Your task to perform on an android device: clear history in the chrome app Image 0: 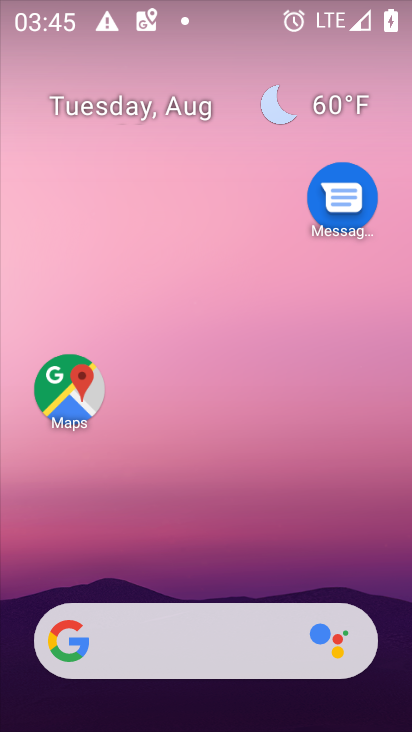
Step 0: drag from (209, 587) to (216, 219)
Your task to perform on an android device: clear history in the chrome app Image 1: 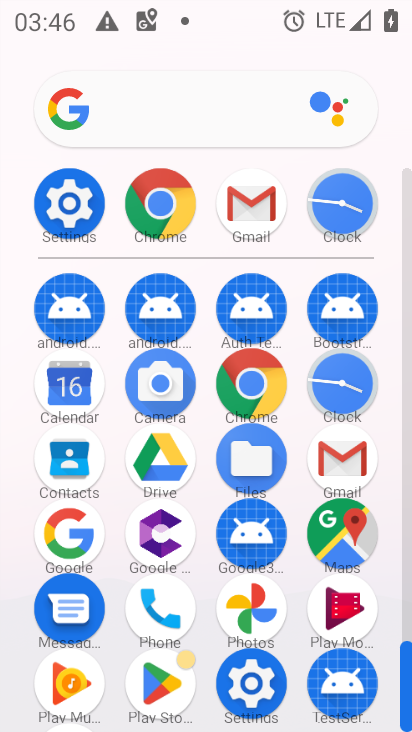
Step 1: click (165, 211)
Your task to perform on an android device: clear history in the chrome app Image 2: 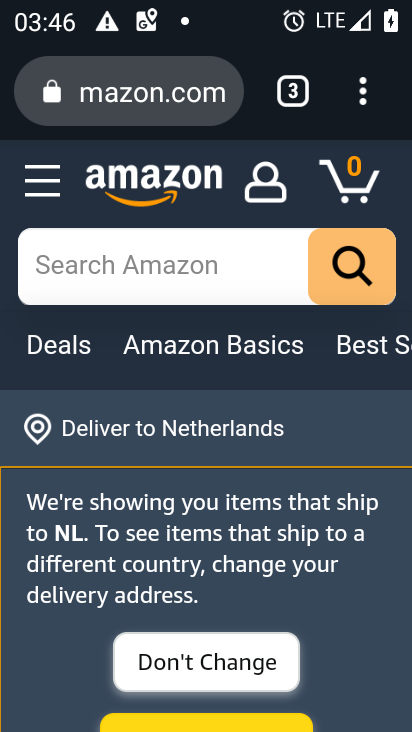
Step 2: click (363, 90)
Your task to perform on an android device: clear history in the chrome app Image 3: 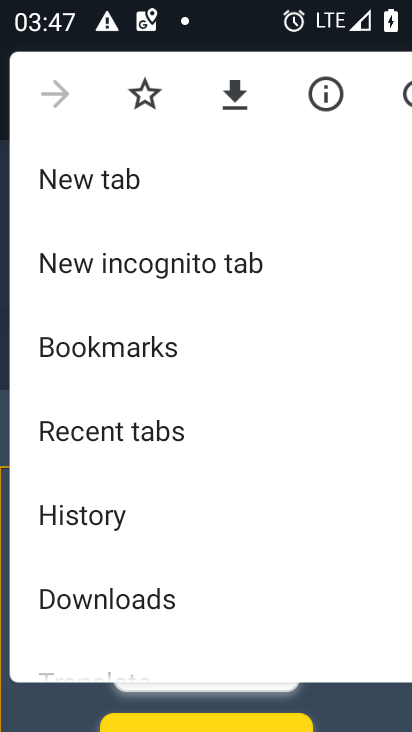
Step 3: click (123, 509)
Your task to perform on an android device: clear history in the chrome app Image 4: 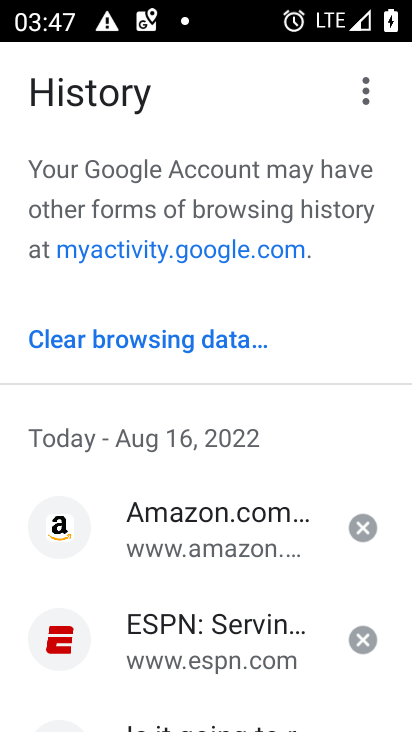
Step 4: click (178, 333)
Your task to perform on an android device: clear history in the chrome app Image 5: 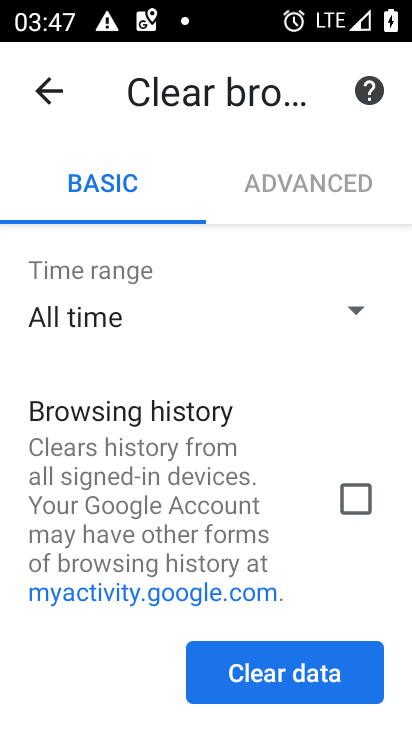
Step 5: click (317, 699)
Your task to perform on an android device: clear history in the chrome app Image 6: 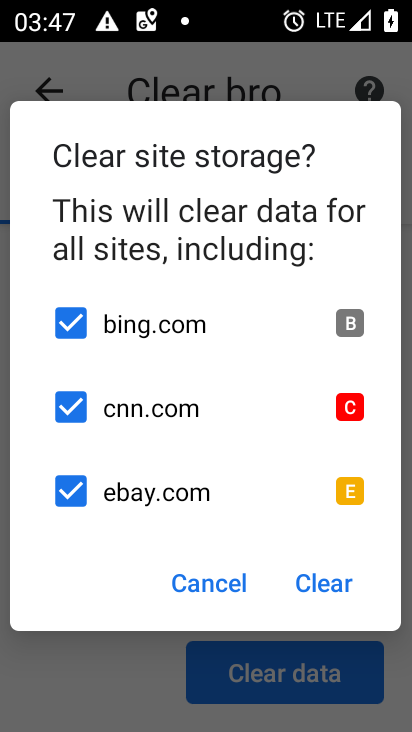
Step 6: click (320, 601)
Your task to perform on an android device: clear history in the chrome app Image 7: 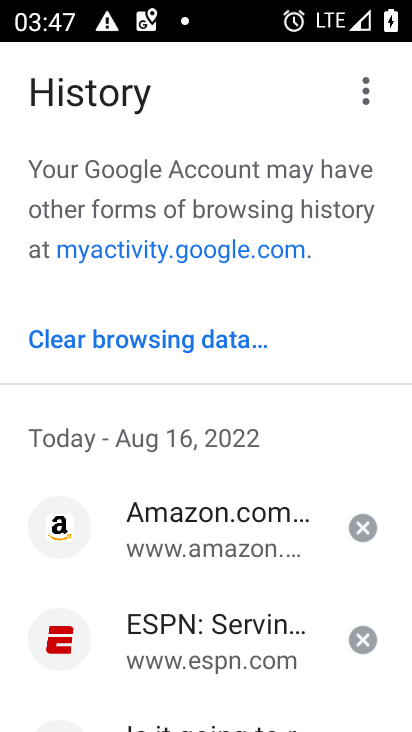
Step 7: task complete